Your task to perform on an android device: snooze an email in the gmail app Image 0: 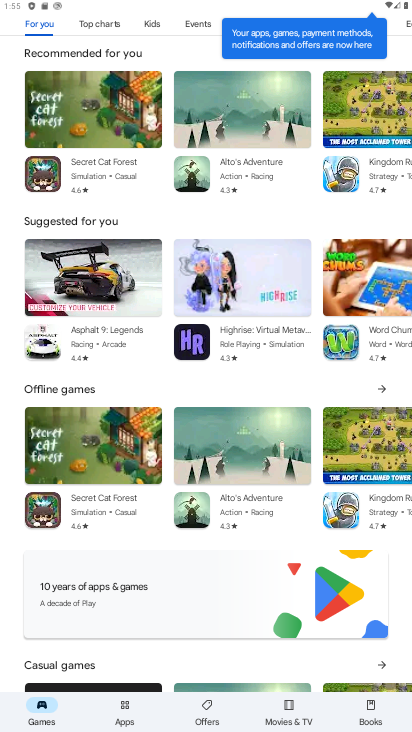
Step 0: press home button
Your task to perform on an android device: snooze an email in the gmail app Image 1: 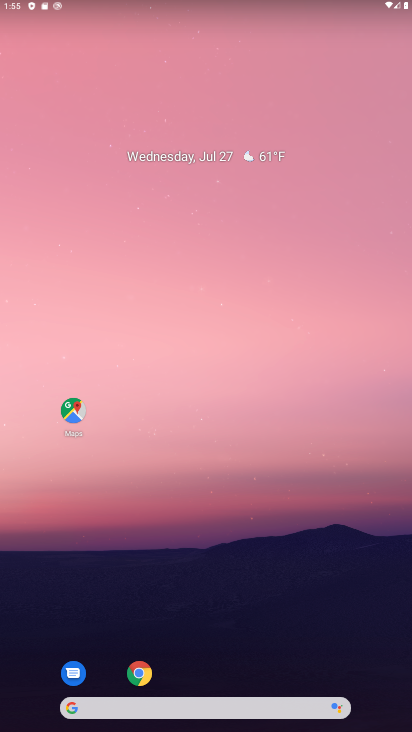
Step 1: drag from (217, 656) to (231, 42)
Your task to perform on an android device: snooze an email in the gmail app Image 2: 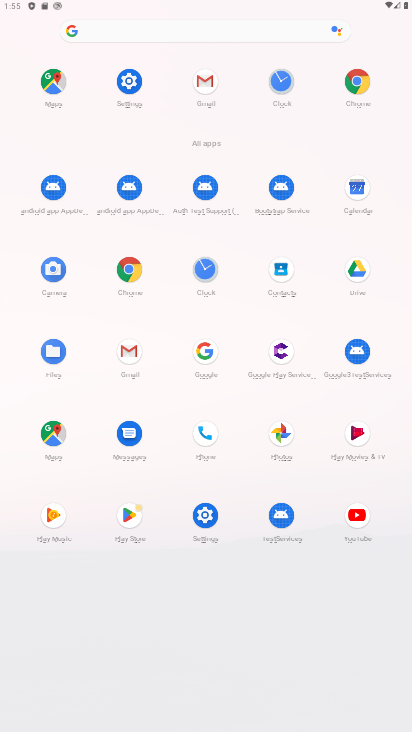
Step 2: click (203, 81)
Your task to perform on an android device: snooze an email in the gmail app Image 3: 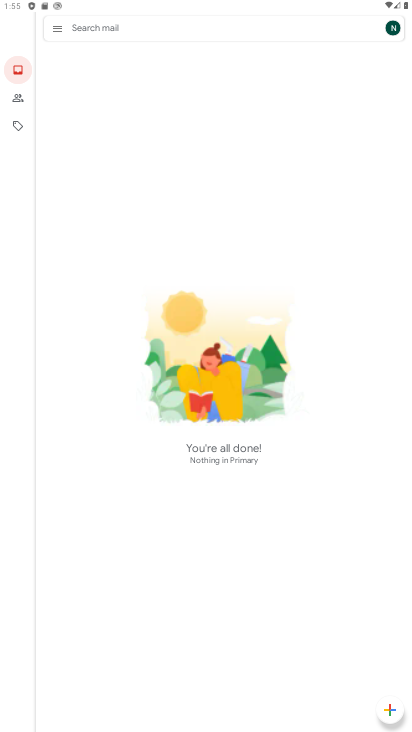
Step 3: task complete